Your task to perform on an android device: turn off wifi Image 0: 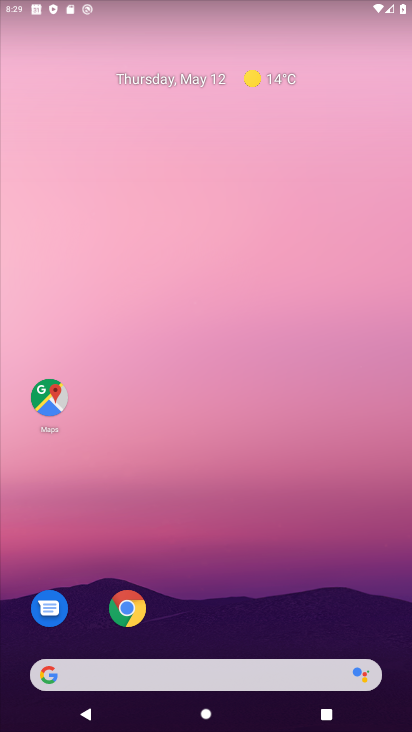
Step 0: click (195, 225)
Your task to perform on an android device: turn off wifi Image 1: 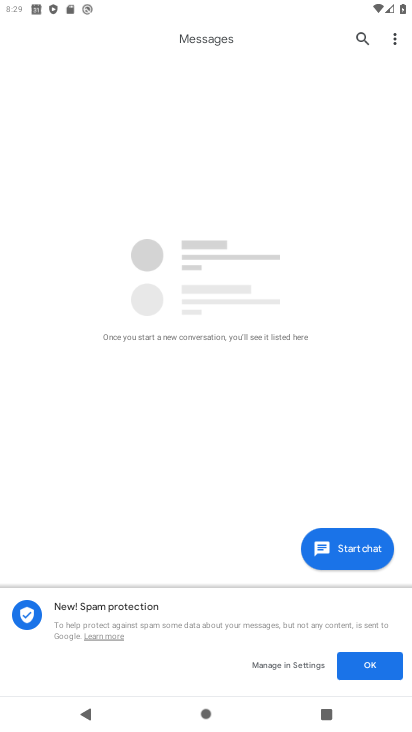
Step 1: press home button
Your task to perform on an android device: turn off wifi Image 2: 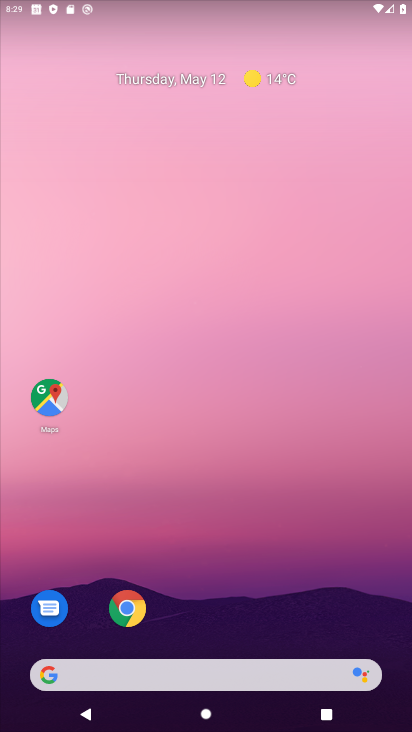
Step 2: drag from (203, 665) to (212, 278)
Your task to perform on an android device: turn off wifi Image 3: 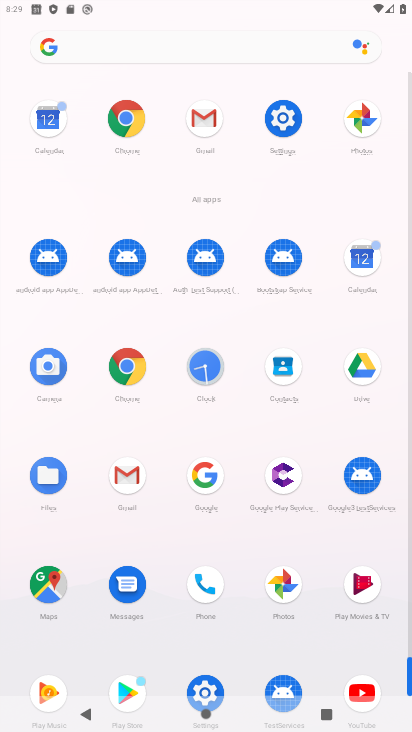
Step 3: click (205, 692)
Your task to perform on an android device: turn off wifi Image 4: 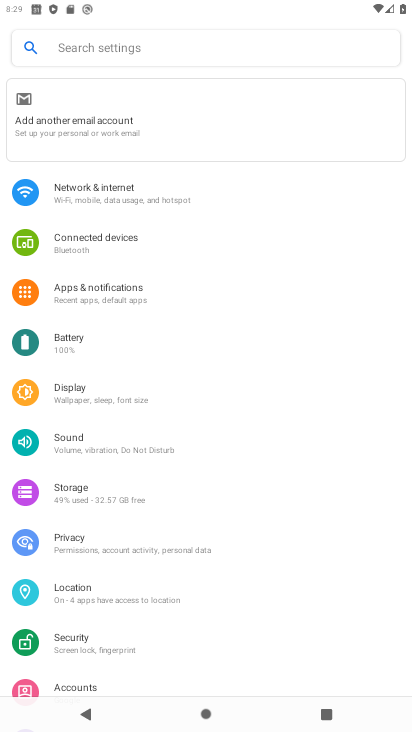
Step 4: click (122, 189)
Your task to perform on an android device: turn off wifi Image 5: 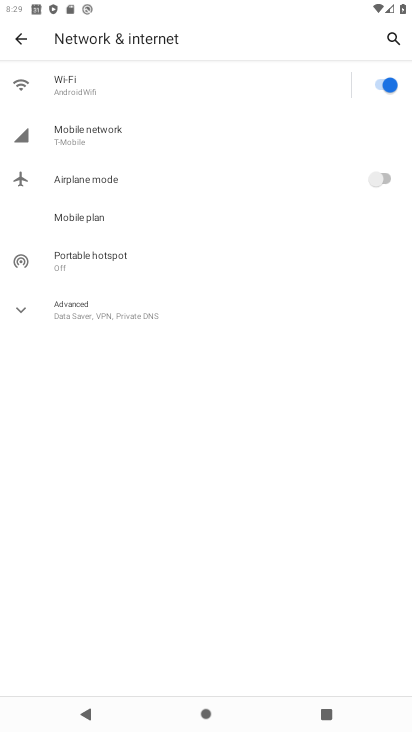
Step 5: click (384, 82)
Your task to perform on an android device: turn off wifi Image 6: 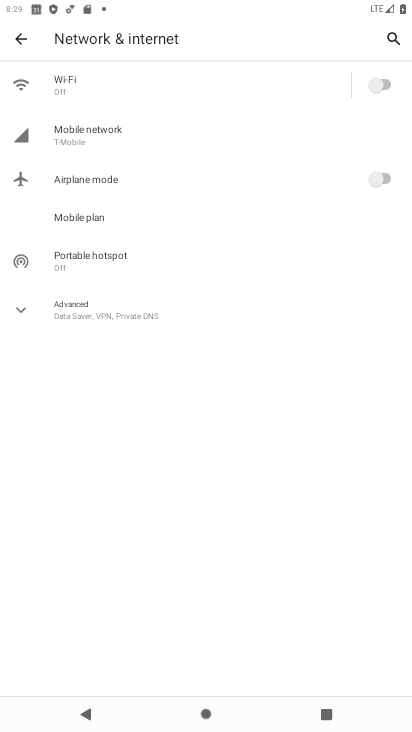
Step 6: task complete